Your task to perform on an android device: Open Yahoo.com Image 0: 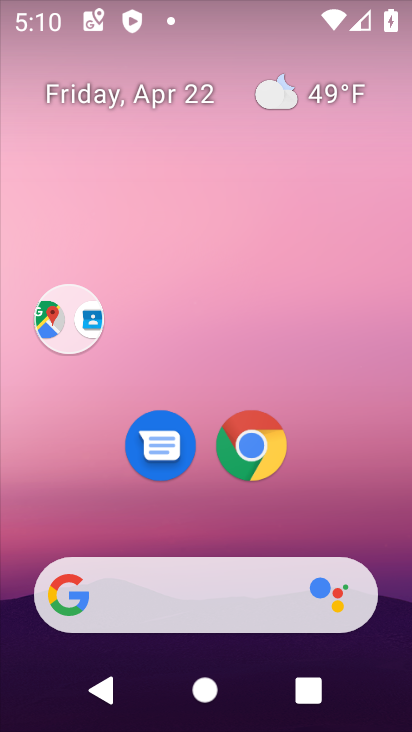
Step 0: drag from (326, 487) to (368, 30)
Your task to perform on an android device: Open Yahoo.com Image 1: 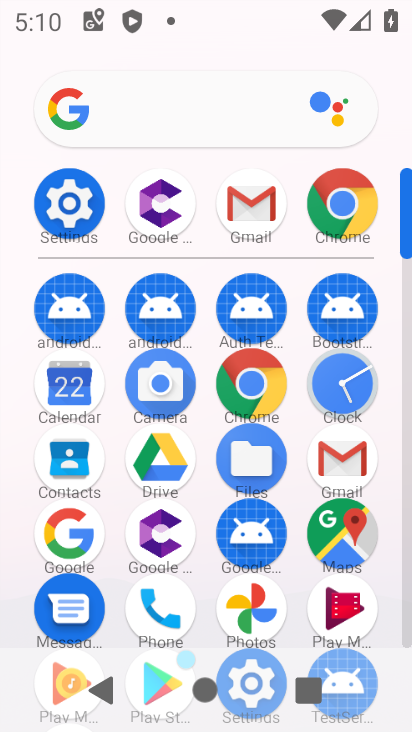
Step 1: click (257, 398)
Your task to perform on an android device: Open Yahoo.com Image 2: 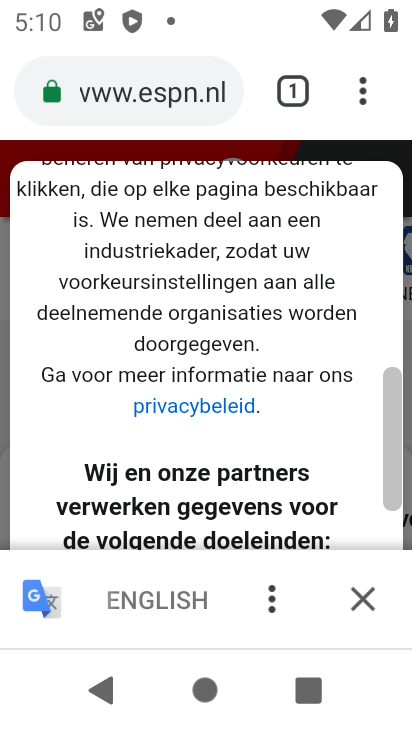
Step 2: click (257, 386)
Your task to perform on an android device: Open Yahoo.com Image 3: 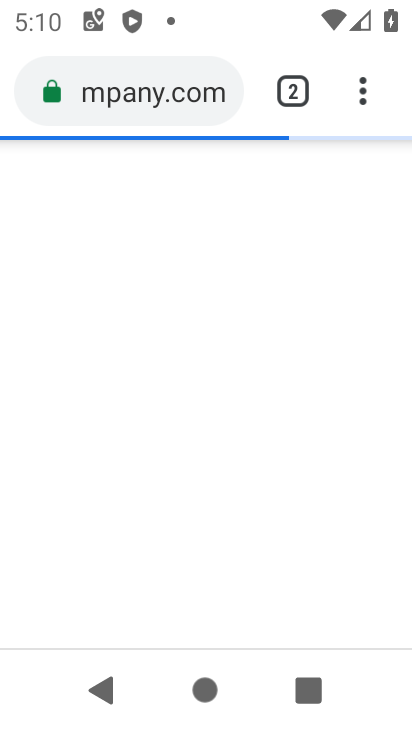
Step 3: click (113, 675)
Your task to perform on an android device: Open Yahoo.com Image 4: 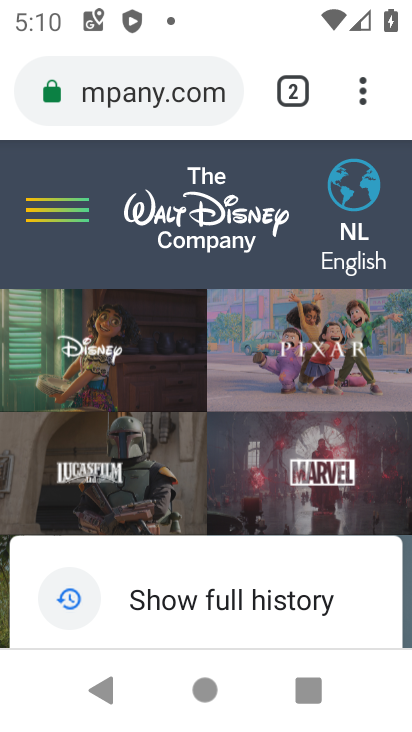
Step 4: click (197, 81)
Your task to perform on an android device: Open Yahoo.com Image 5: 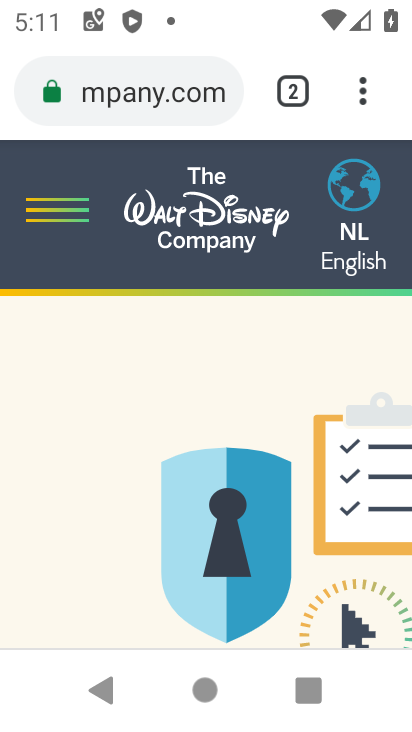
Step 5: click (115, 91)
Your task to perform on an android device: Open Yahoo.com Image 6: 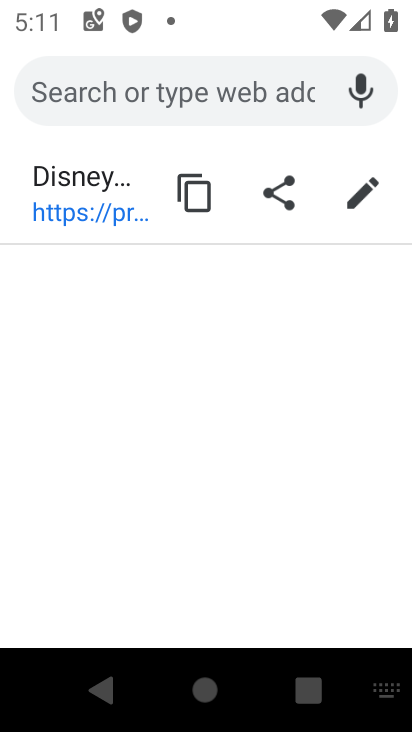
Step 6: type "yahoo.com"
Your task to perform on an android device: Open Yahoo.com Image 7: 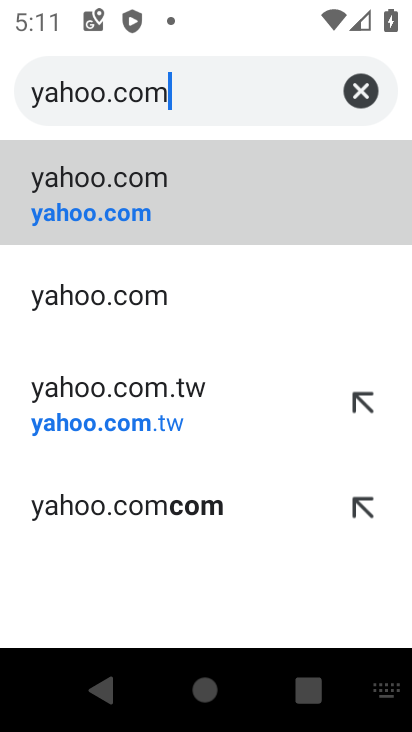
Step 7: click (111, 209)
Your task to perform on an android device: Open Yahoo.com Image 8: 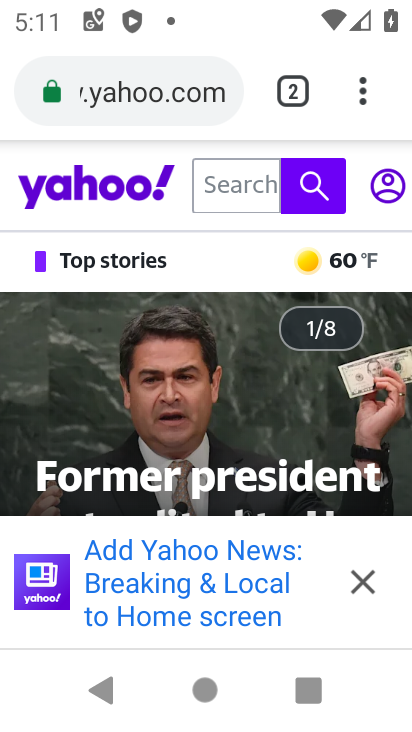
Step 8: task complete